Your task to perform on an android device: find which apps use the phone's location Image 0: 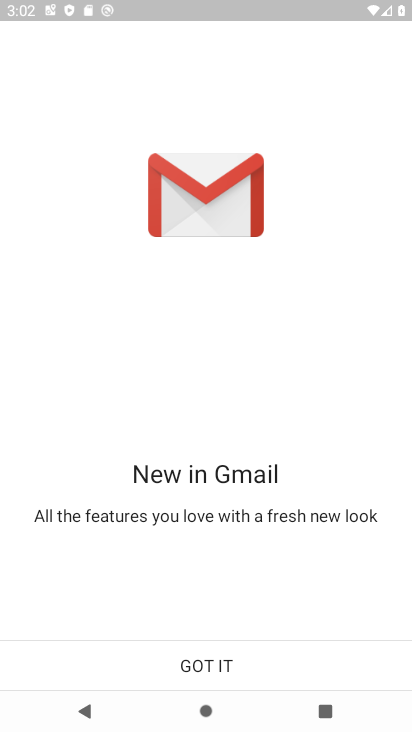
Step 0: press home button
Your task to perform on an android device: find which apps use the phone's location Image 1: 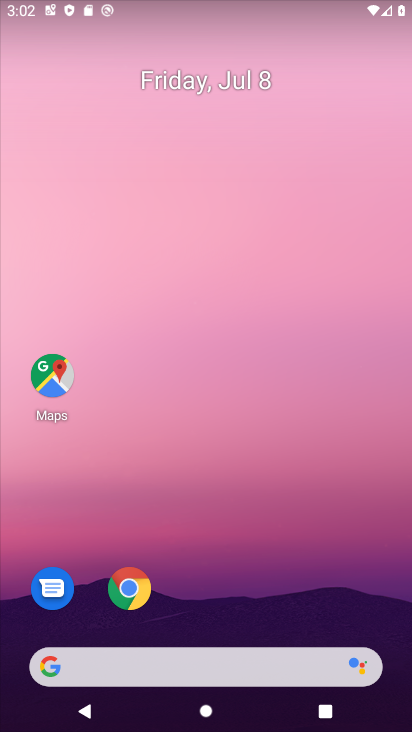
Step 1: drag from (176, 670) to (261, 190)
Your task to perform on an android device: find which apps use the phone's location Image 2: 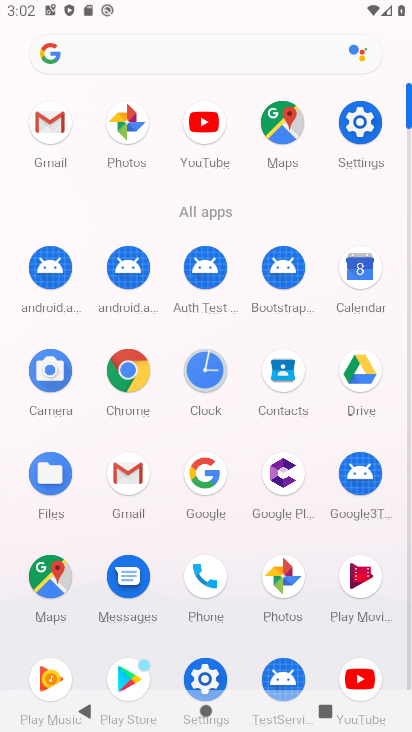
Step 2: click (353, 125)
Your task to perform on an android device: find which apps use the phone's location Image 3: 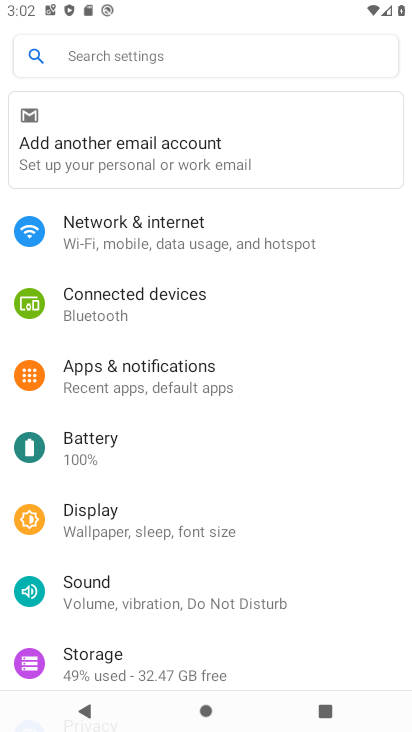
Step 3: drag from (154, 627) to (218, 121)
Your task to perform on an android device: find which apps use the phone's location Image 4: 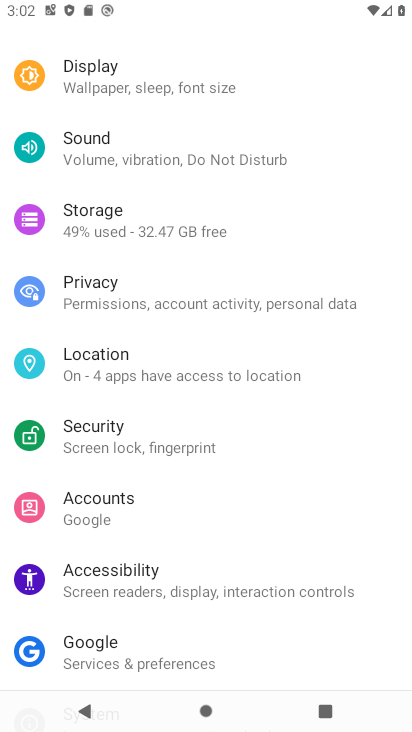
Step 4: click (151, 360)
Your task to perform on an android device: find which apps use the phone's location Image 5: 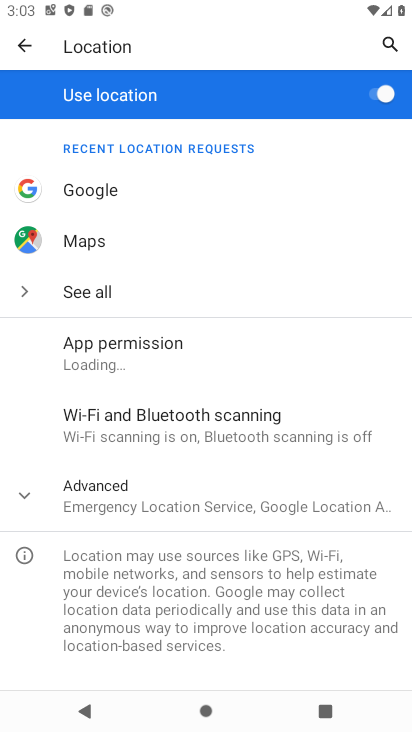
Step 5: click (128, 499)
Your task to perform on an android device: find which apps use the phone's location Image 6: 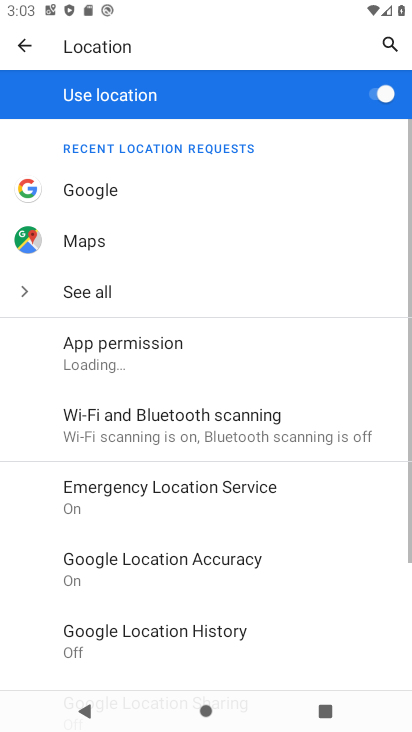
Step 6: click (117, 344)
Your task to perform on an android device: find which apps use the phone's location Image 7: 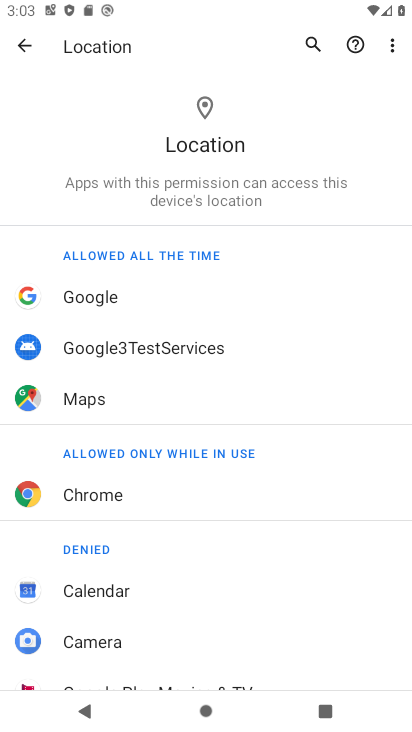
Step 7: drag from (155, 622) to (311, 0)
Your task to perform on an android device: find which apps use the phone's location Image 8: 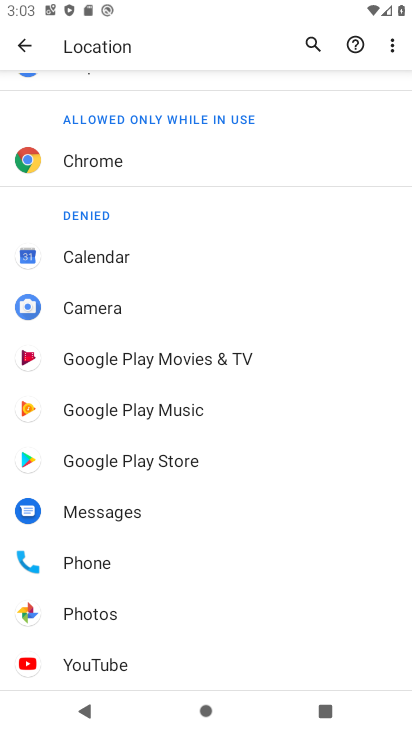
Step 8: click (109, 561)
Your task to perform on an android device: find which apps use the phone's location Image 9: 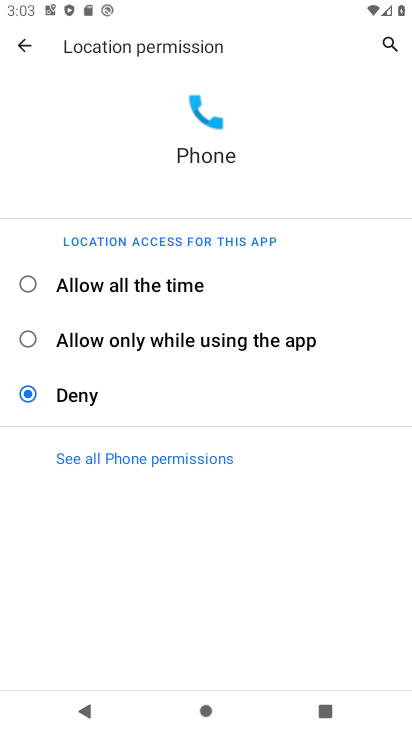
Step 9: task complete